Your task to perform on an android device: Open location settings Image 0: 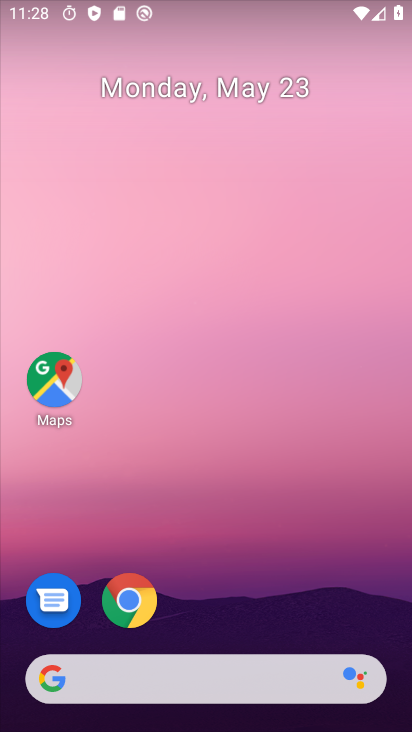
Step 0: drag from (246, 483) to (258, 124)
Your task to perform on an android device: Open location settings Image 1: 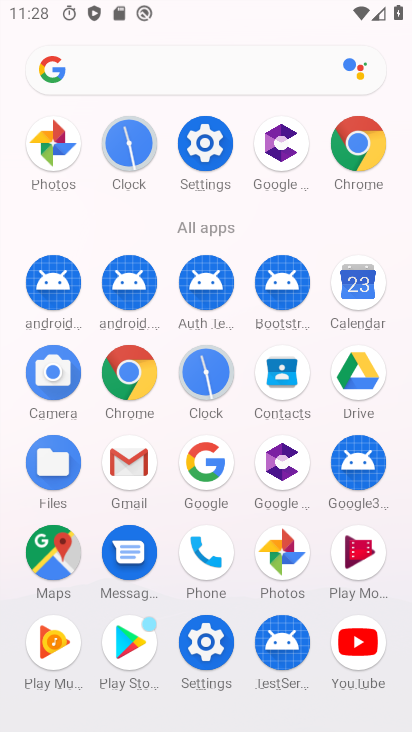
Step 1: click (207, 142)
Your task to perform on an android device: Open location settings Image 2: 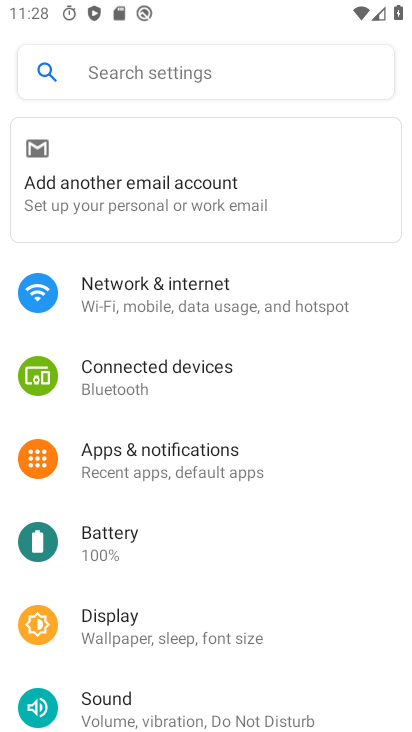
Step 2: drag from (176, 574) to (254, 272)
Your task to perform on an android device: Open location settings Image 3: 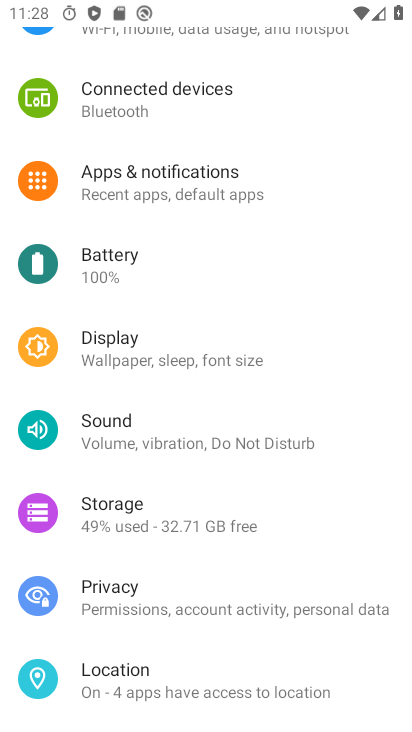
Step 3: click (157, 673)
Your task to perform on an android device: Open location settings Image 4: 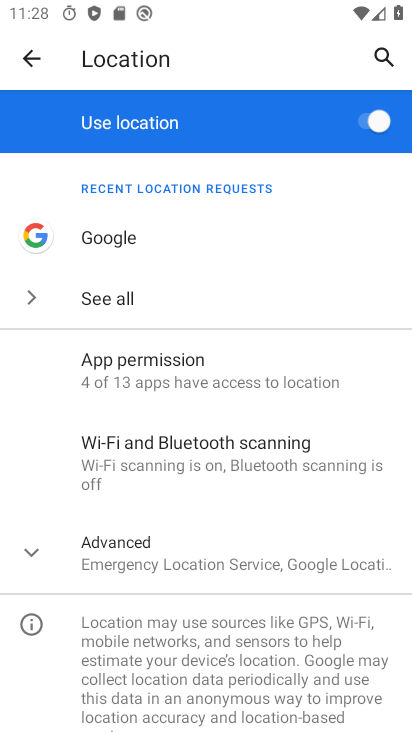
Step 4: task complete